Your task to perform on an android device: Go to eBay Image 0: 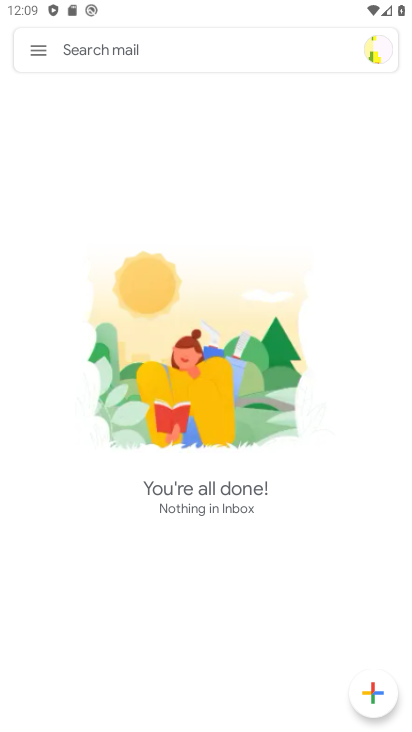
Step 0: press home button
Your task to perform on an android device: Go to eBay Image 1: 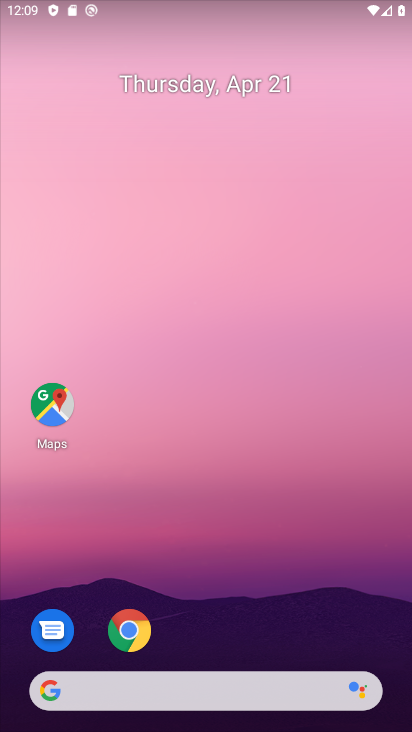
Step 1: click (140, 644)
Your task to perform on an android device: Go to eBay Image 2: 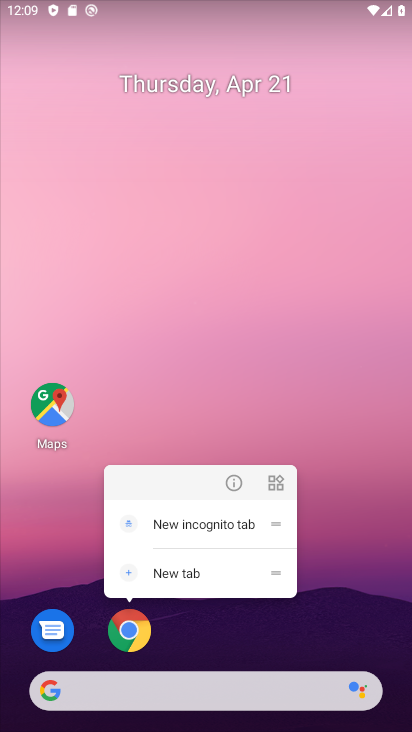
Step 2: click (139, 638)
Your task to perform on an android device: Go to eBay Image 3: 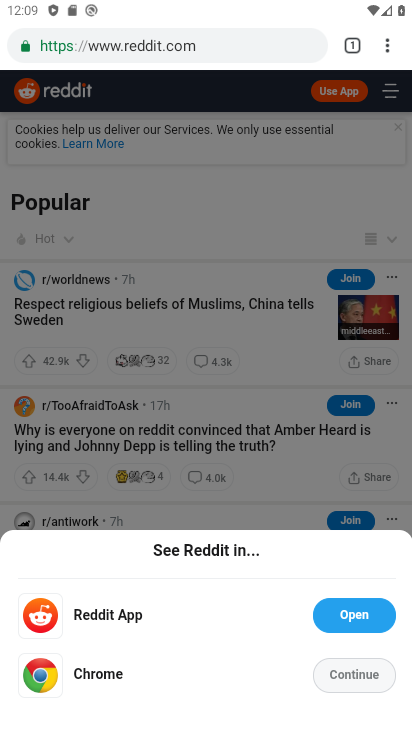
Step 3: press back button
Your task to perform on an android device: Go to eBay Image 4: 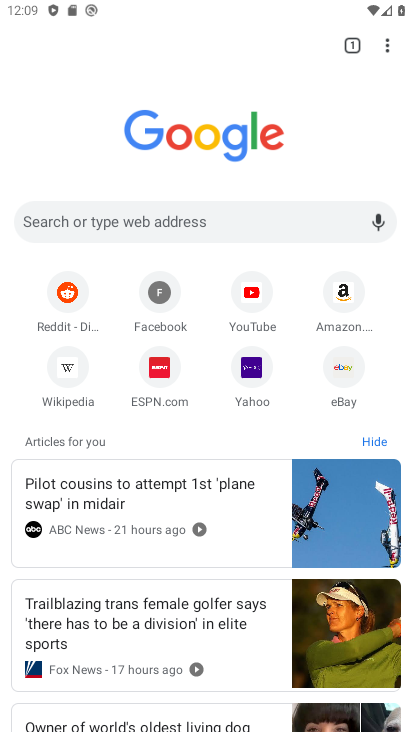
Step 4: click (352, 368)
Your task to perform on an android device: Go to eBay Image 5: 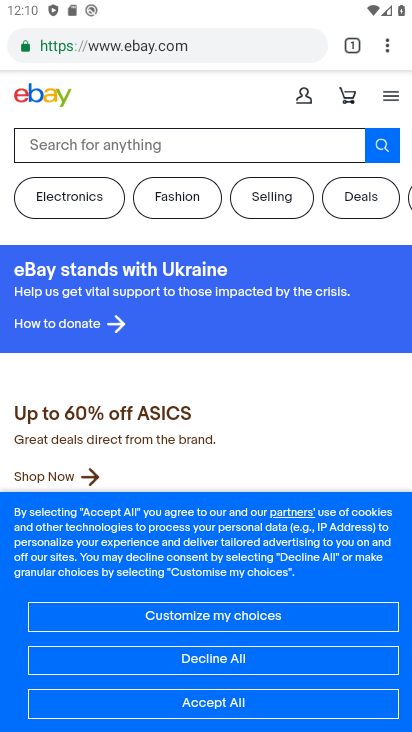
Step 5: task complete